Your task to perform on an android device: Open the stopwatch Image 0: 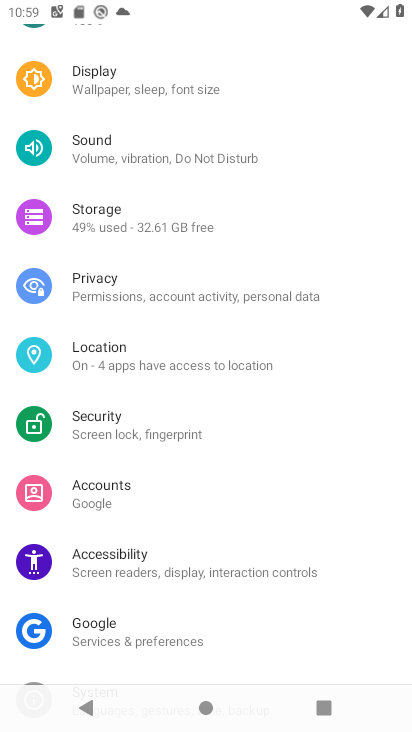
Step 0: press home button
Your task to perform on an android device: Open the stopwatch Image 1: 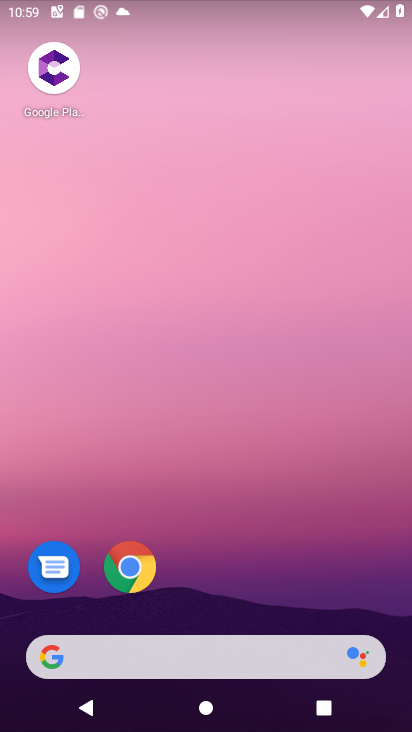
Step 1: drag from (250, 719) to (251, 46)
Your task to perform on an android device: Open the stopwatch Image 2: 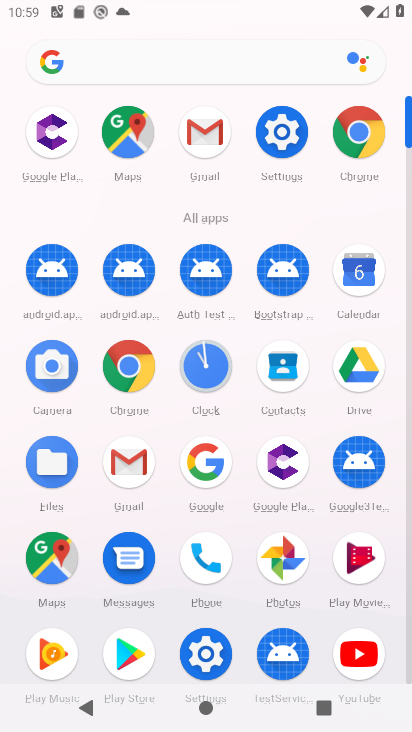
Step 2: click (209, 367)
Your task to perform on an android device: Open the stopwatch Image 3: 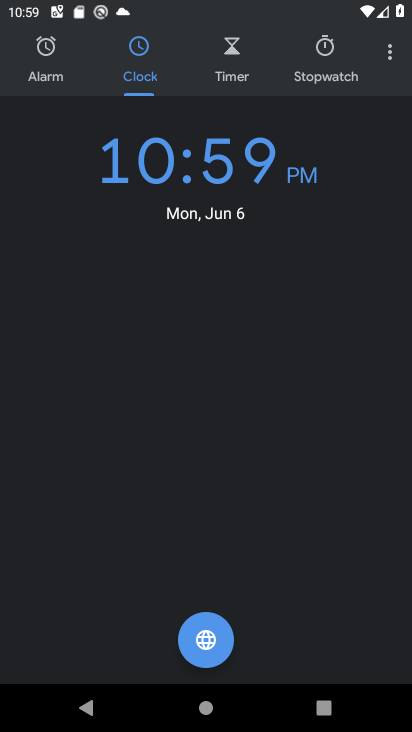
Step 3: click (325, 45)
Your task to perform on an android device: Open the stopwatch Image 4: 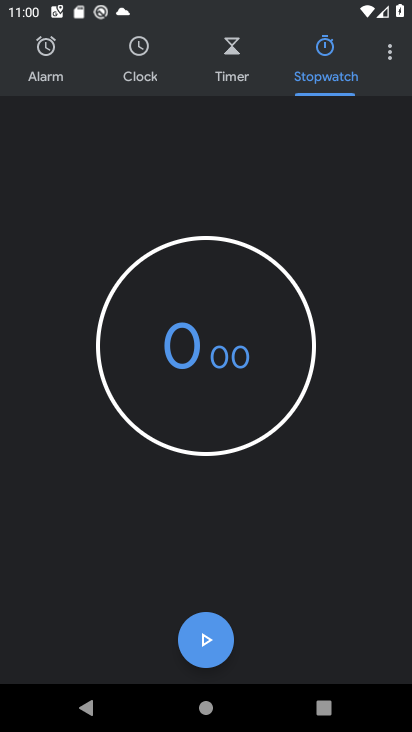
Step 4: task complete